Your task to perform on an android device: Check the weather Image 0: 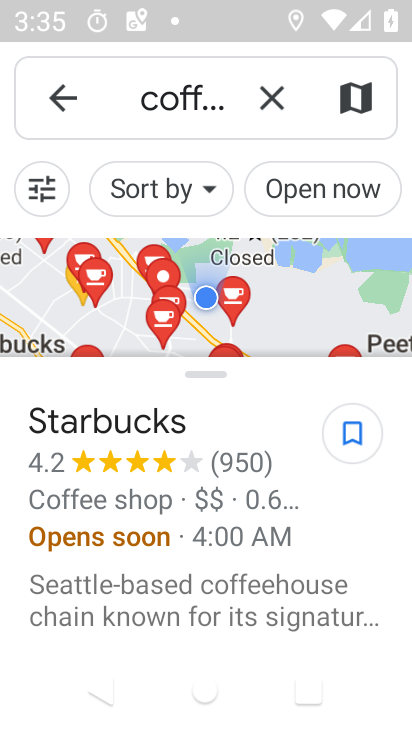
Step 0: press home button
Your task to perform on an android device: Check the weather Image 1: 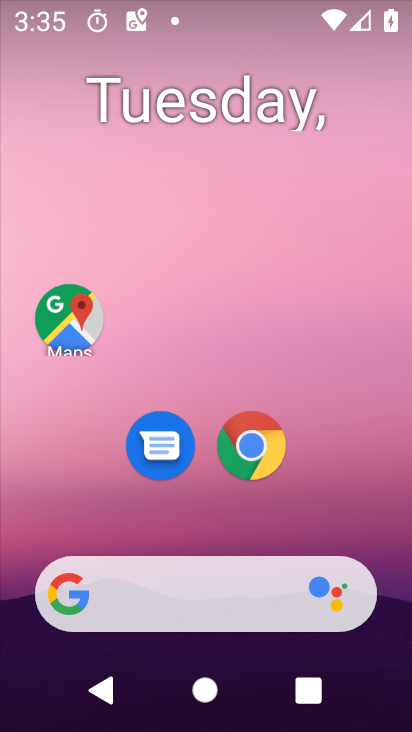
Step 1: click (217, 580)
Your task to perform on an android device: Check the weather Image 2: 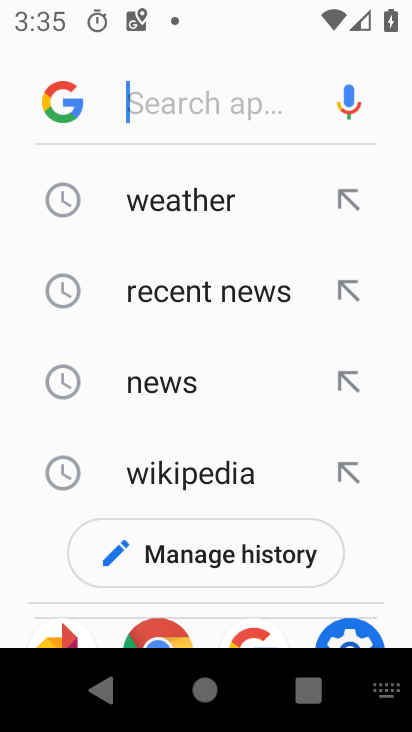
Step 2: click (139, 218)
Your task to perform on an android device: Check the weather Image 3: 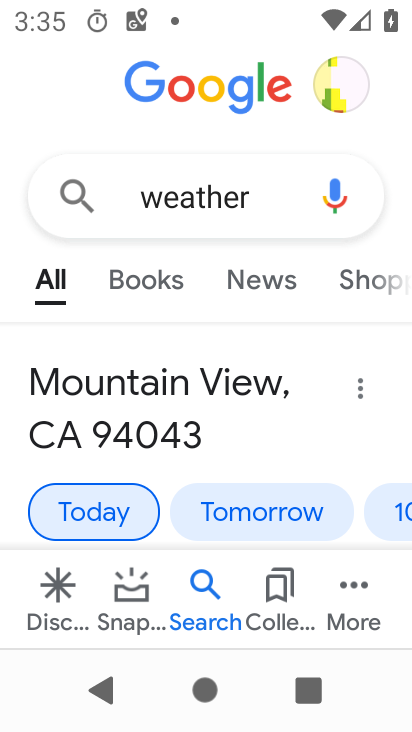
Step 3: task complete